Your task to perform on an android device: change notifications settings Image 0: 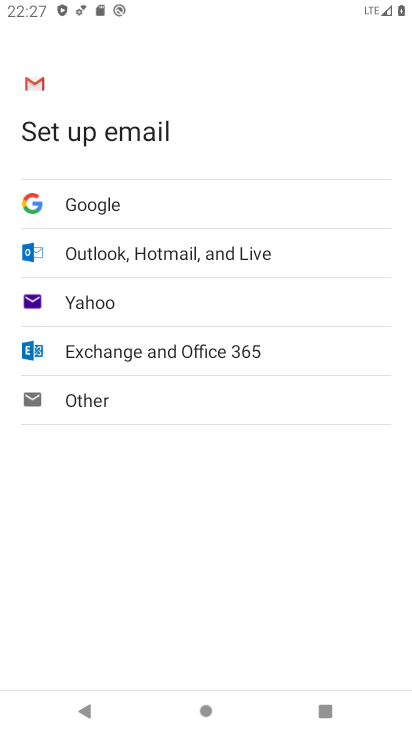
Step 0: press home button
Your task to perform on an android device: change notifications settings Image 1: 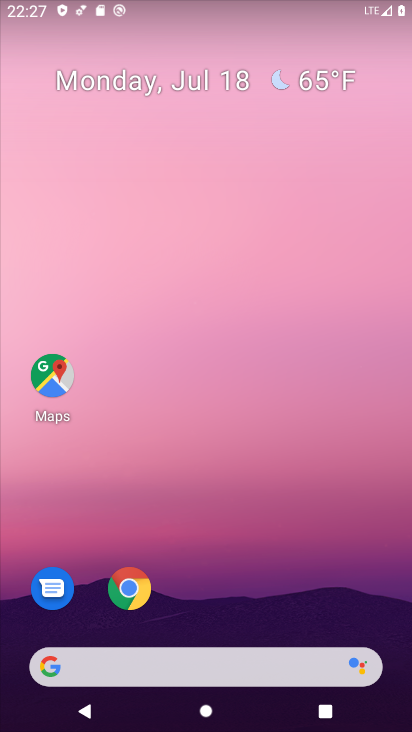
Step 1: drag from (242, 607) to (224, 113)
Your task to perform on an android device: change notifications settings Image 2: 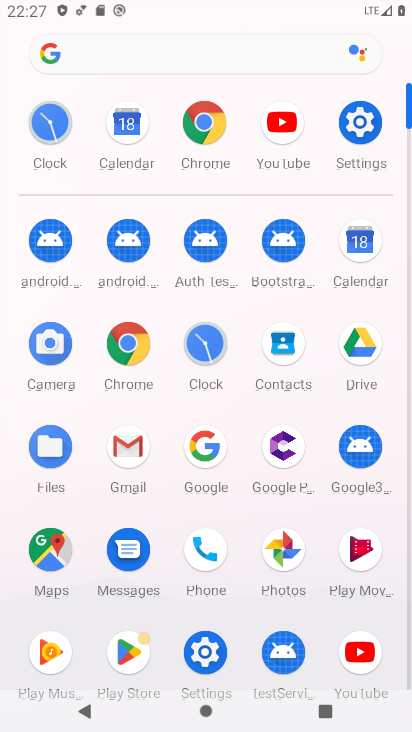
Step 2: click (351, 123)
Your task to perform on an android device: change notifications settings Image 3: 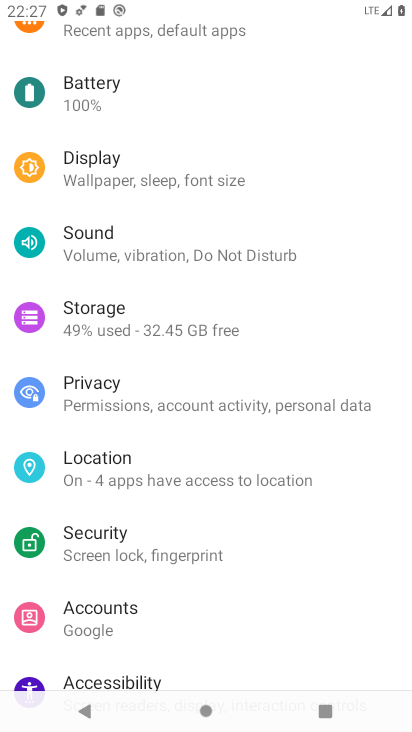
Step 3: drag from (136, 58) to (172, 385)
Your task to perform on an android device: change notifications settings Image 4: 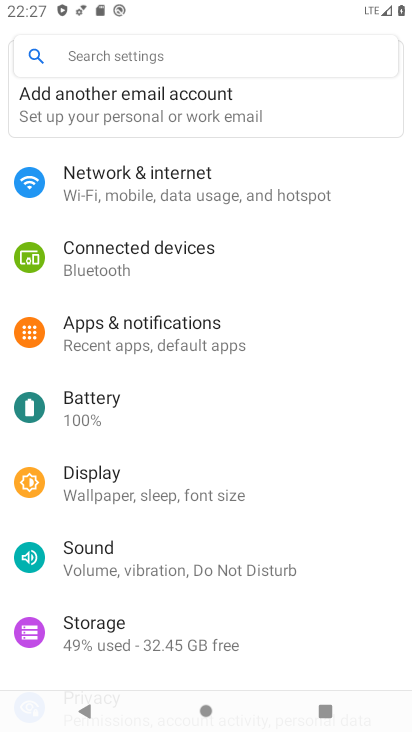
Step 4: click (150, 334)
Your task to perform on an android device: change notifications settings Image 5: 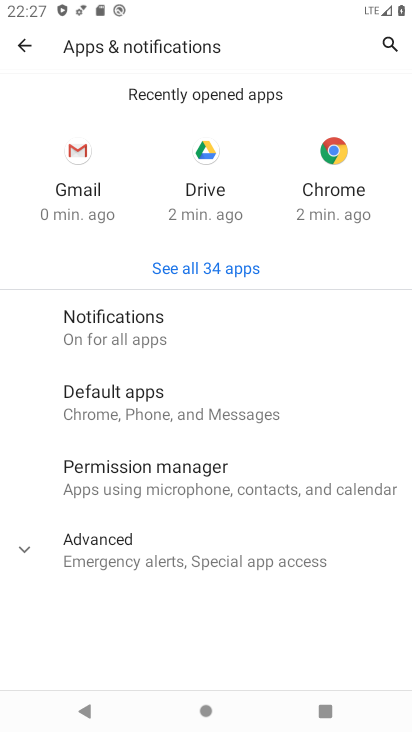
Step 5: click (151, 333)
Your task to perform on an android device: change notifications settings Image 6: 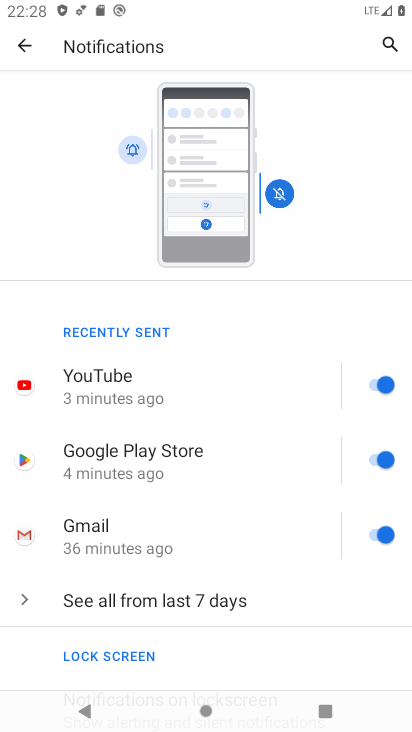
Step 6: click (138, 152)
Your task to perform on an android device: change notifications settings Image 7: 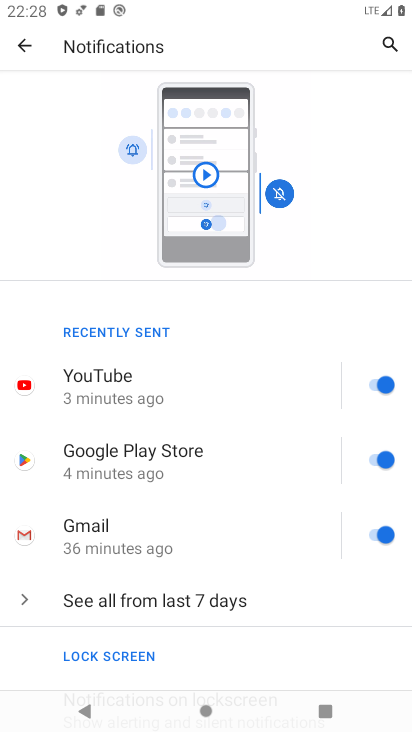
Step 7: click (282, 195)
Your task to perform on an android device: change notifications settings Image 8: 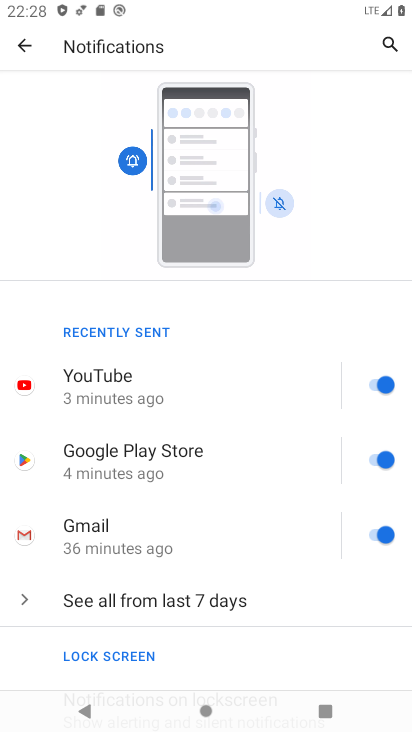
Step 8: task complete